Your task to perform on an android device: Open the stopwatch Image 0: 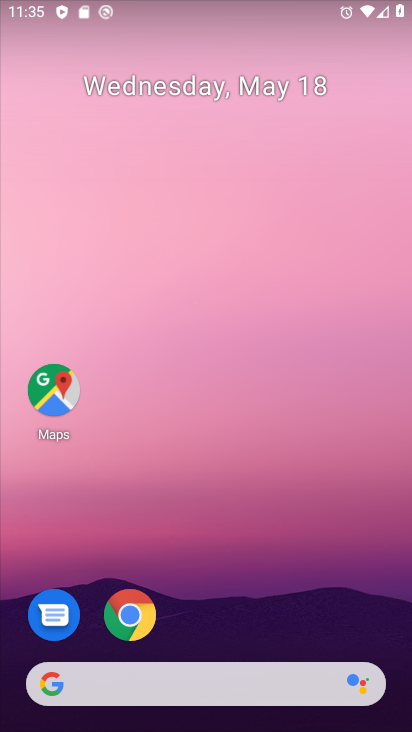
Step 0: press home button
Your task to perform on an android device: Open the stopwatch Image 1: 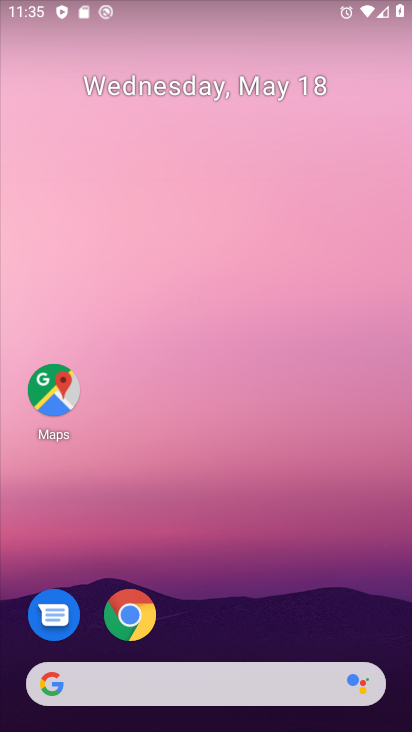
Step 1: drag from (18, 449) to (202, 118)
Your task to perform on an android device: Open the stopwatch Image 2: 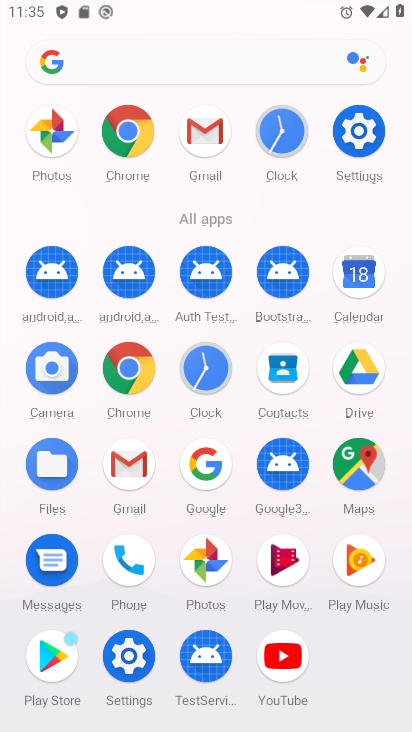
Step 2: click (187, 357)
Your task to perform on an android device: Open the stopwatch Image 3: 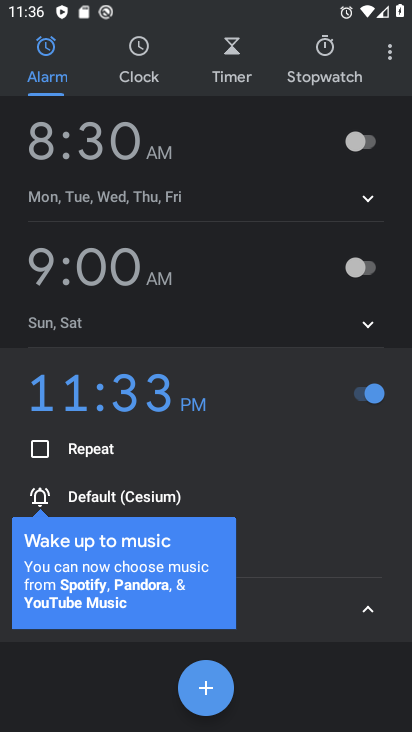
Step 3: click (305, 75)
Your task to perform on an android device: Open the stopwatch Image 4: 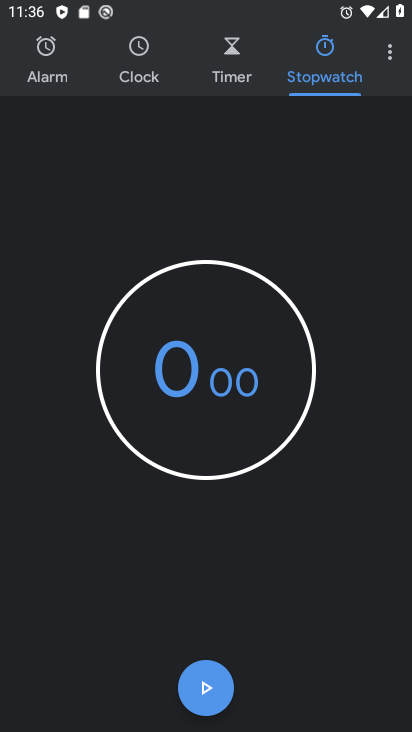
Step 4: click (215, 686)
Your task to perform on an android device: Open the stopwatch Image 5: 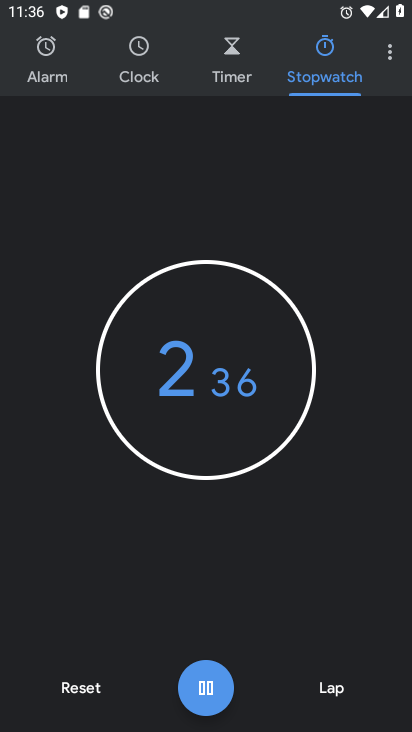
Step 5: task complete